Your task to perform on an android device: Clear the cart on costco. Search for energizer triple a on costco, select the first entry, add it to the cart, then select checkout. Image 0: 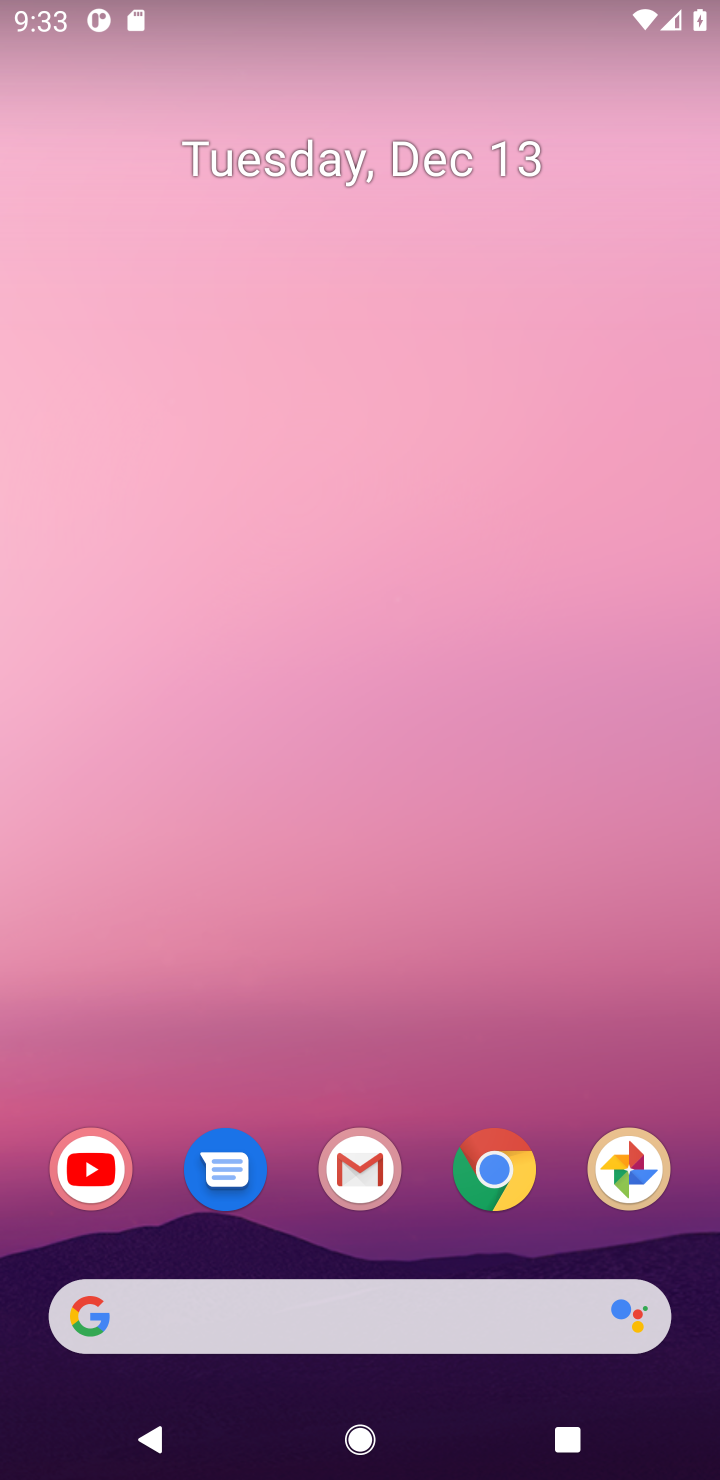
Step 0: click (476, 1202)
Your task to perform on an android device: Clear the cart on costco. Search for energizer triple a on costco, select the first entry, add it to the cart, then select checkout. Image 1: 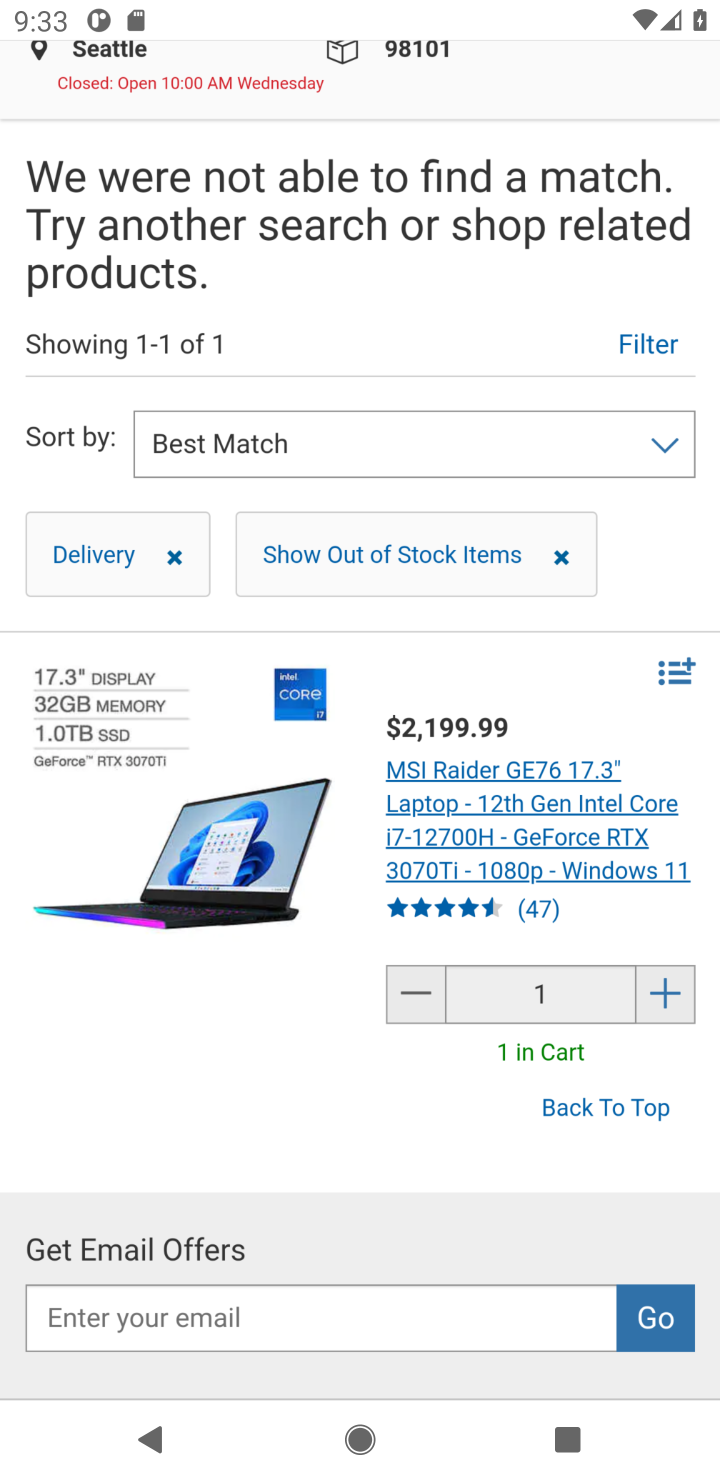
Step 1: click (476, 1202)
Your task to perform on an android device: Clear the cart on costco. Search for energizer triple a on costco, select the first entry, add it to the cart, then select checkout. Image 2: 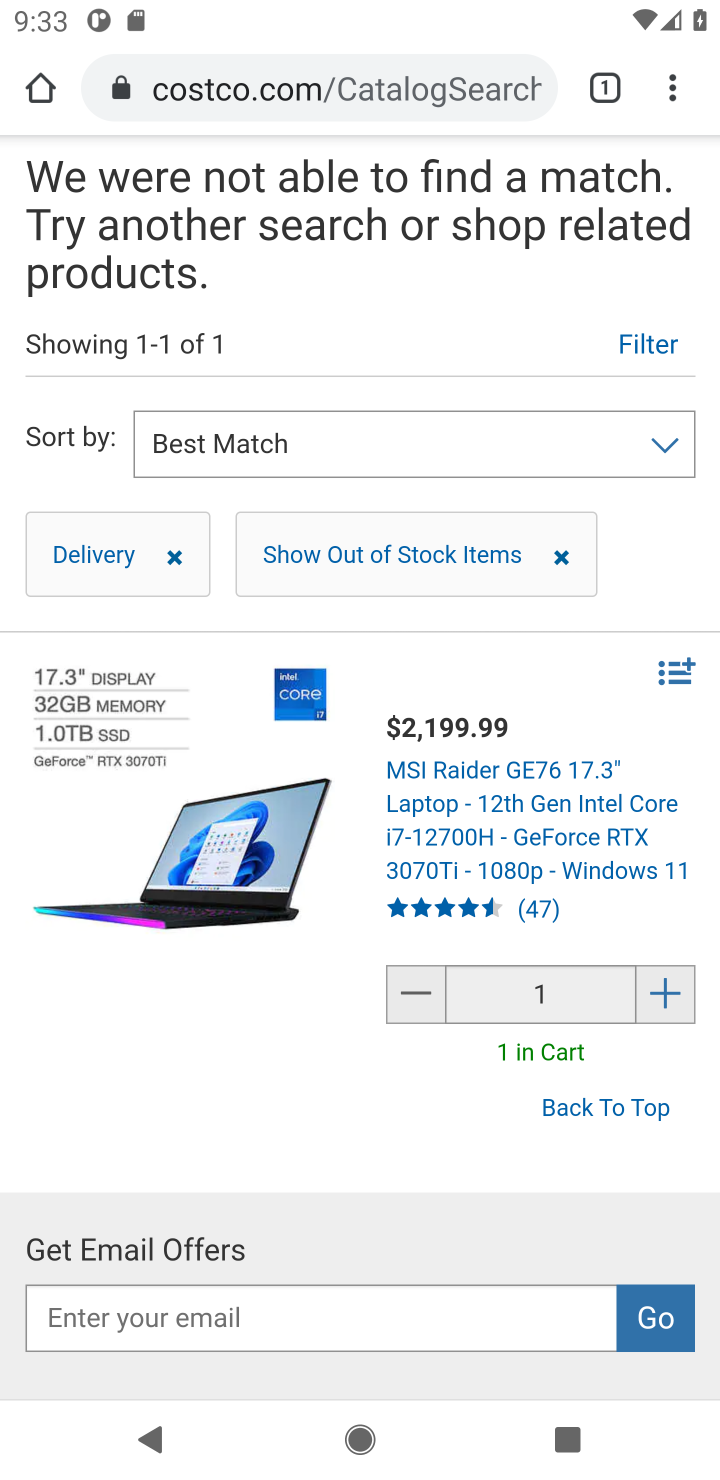
Step 2: drag from (362, 199) to (598, 1205)
Your task to perform on an android device: Clear the cart on costco. Search for energizer triple a on costco, select the first entry, add it to the cart, then select checkout. Image 3: 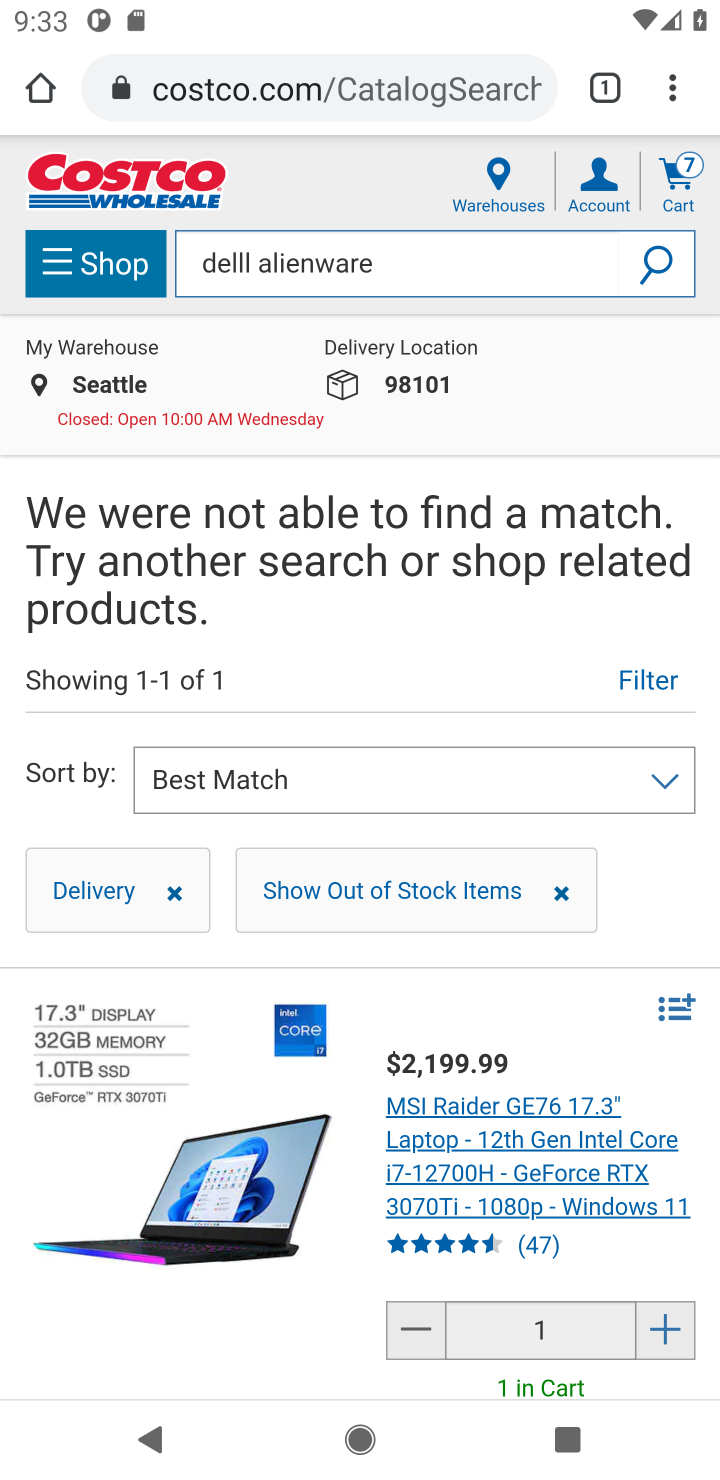
Step 3: click (380, 279)
Your task to perform on an android device: Clear the cart on costco. Search for energizer triple a on costco, select the first entry, add it to the cart, then select checkout. Image 4: 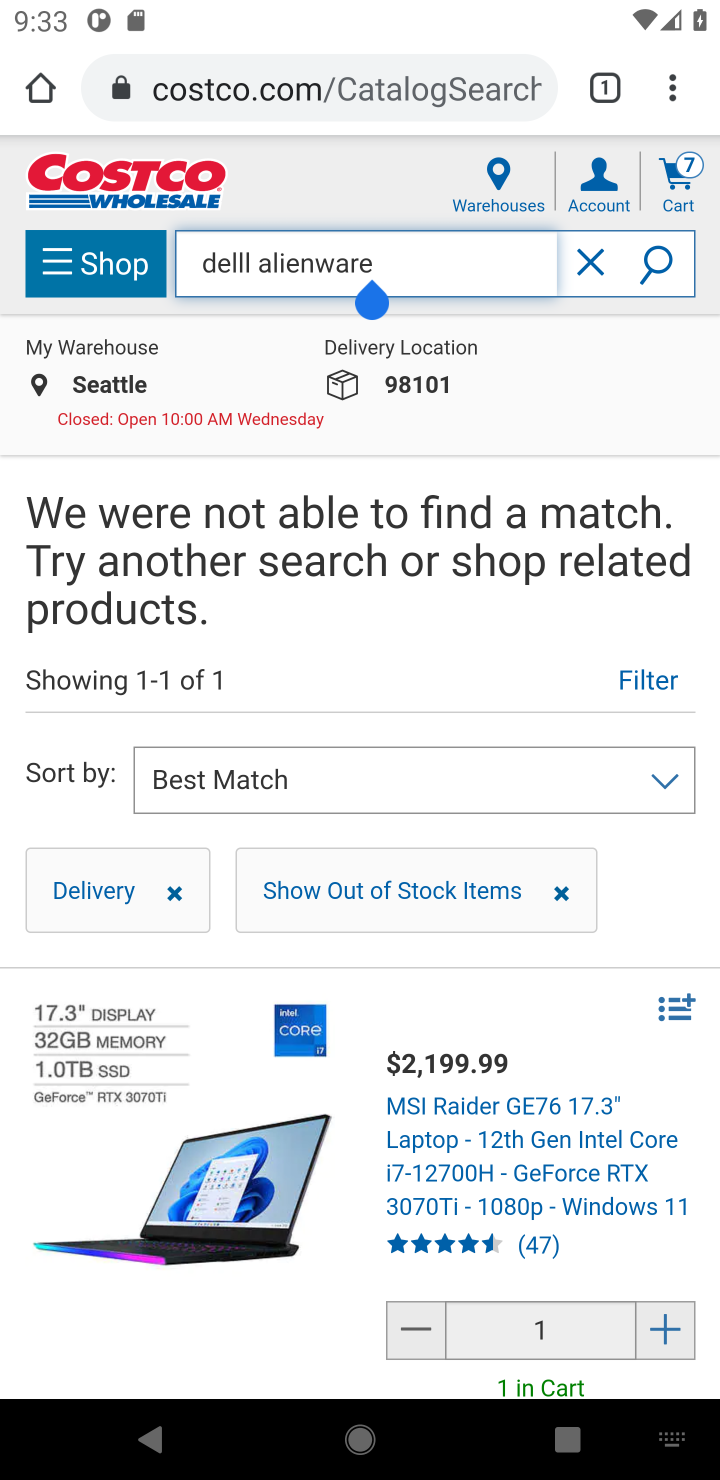
Step 4: click (580, 260)
Your task to perform on an android device: Clear the cart on costco. Search for energizer triple a on costco, select the first entry, add it to the cart, then select checkout. Image 5: 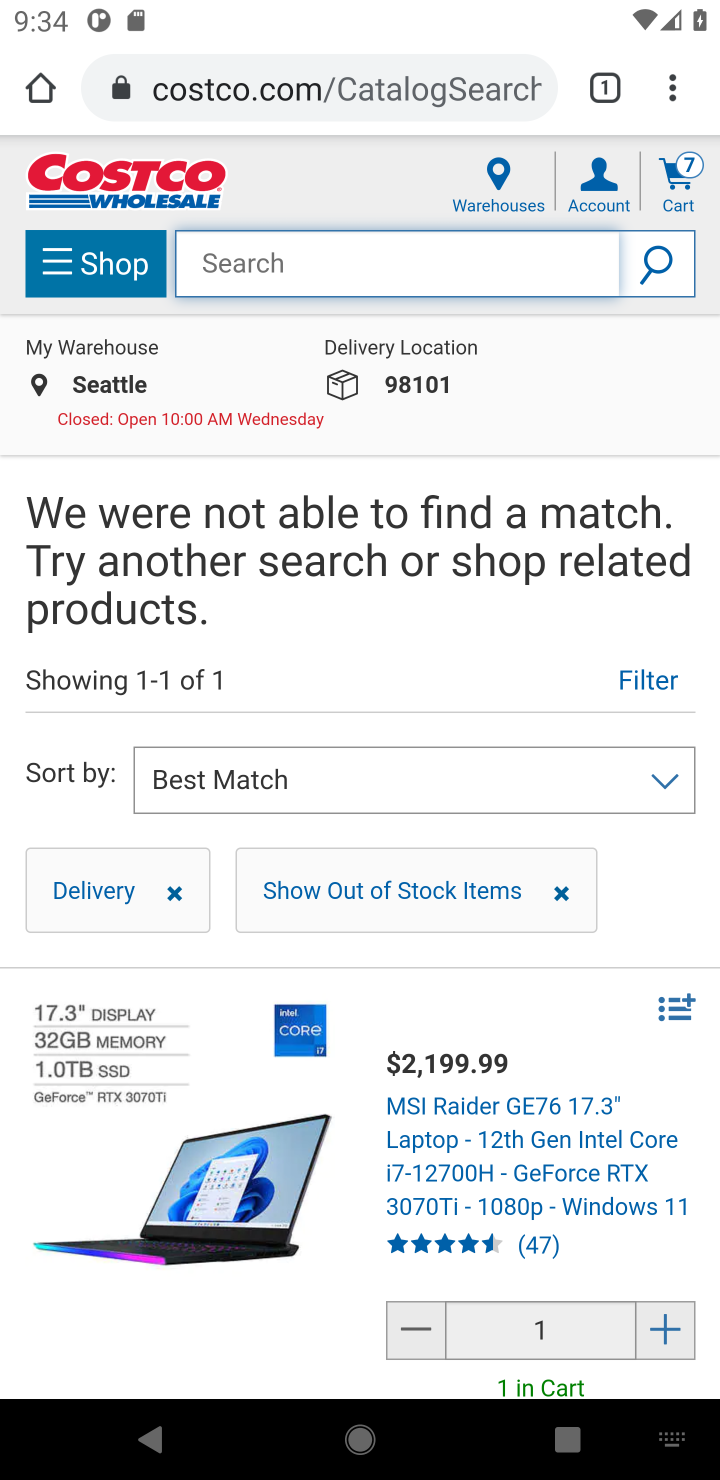
Step 5: type "energizer triple a"
Your task to perform on an android device: Clear the cart on costco. Search for energizer triple a on costco, select the first entry, add it to the cart, then select checkout. Image 6: 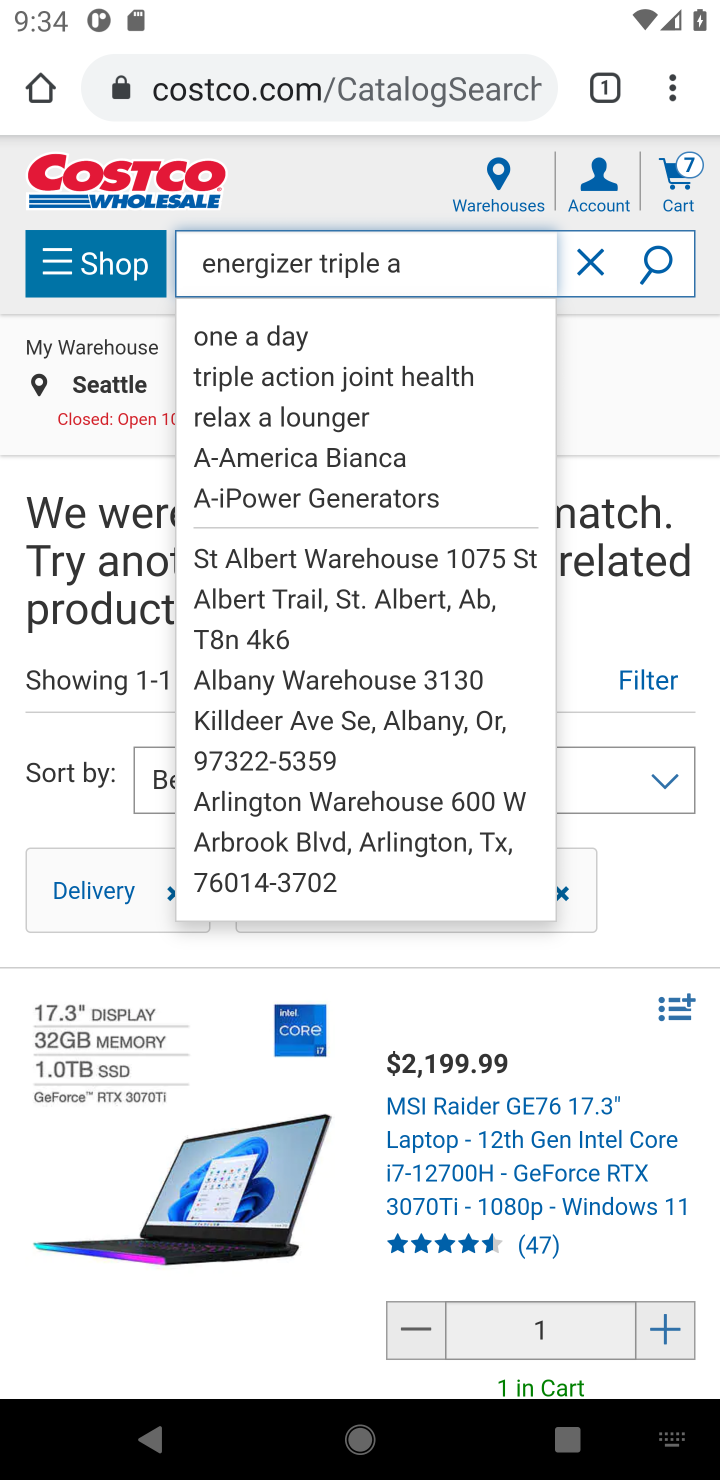
Step 6: click (656, 273)
Your task to perform on an android device: Clear the cart on costco. Search for energizer triple a on costco, select the first entry, add it to the cart, then select checkout. Image 7: 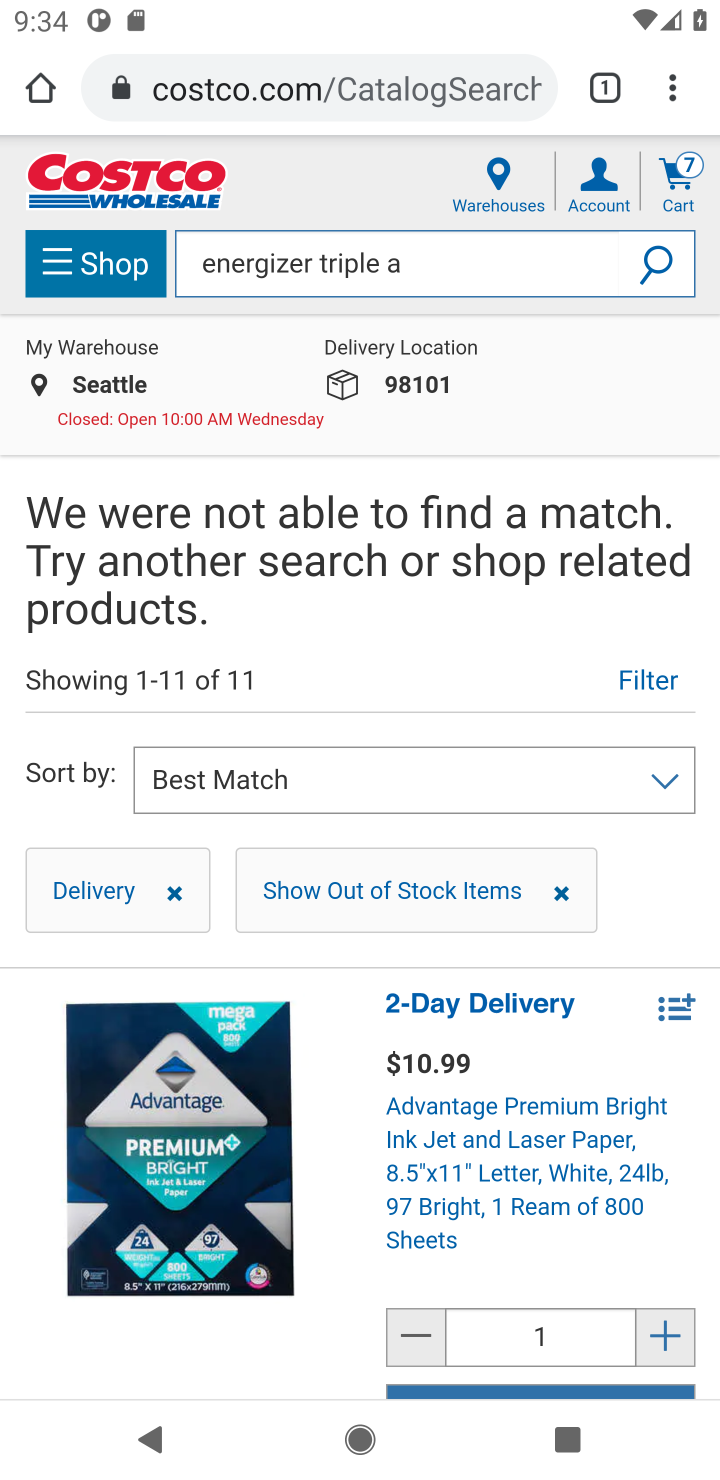
Step 7: drag from (499, 1135) to (465, 696)
Your task to perform on an android device: Clear the cart on costco. Search for energizer triple a on costco, select the first entry, add it to the cart, then select checkout. Image 8: 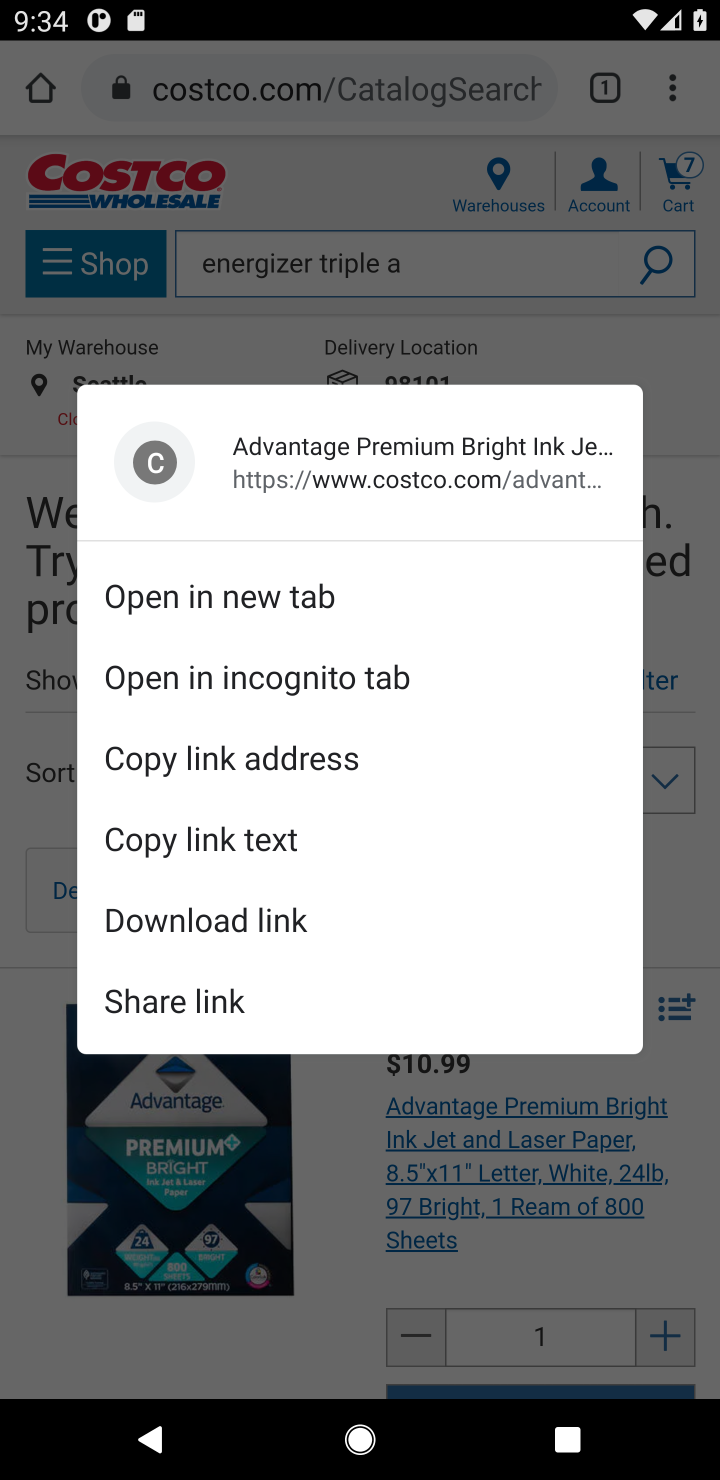
Step 8: click (296, 1214)
Your task to perform on an android device: Clear the cart on costco. Search for energizer triple a on costco, select the first entry, add it to the cart, then select checkout. Image 9: 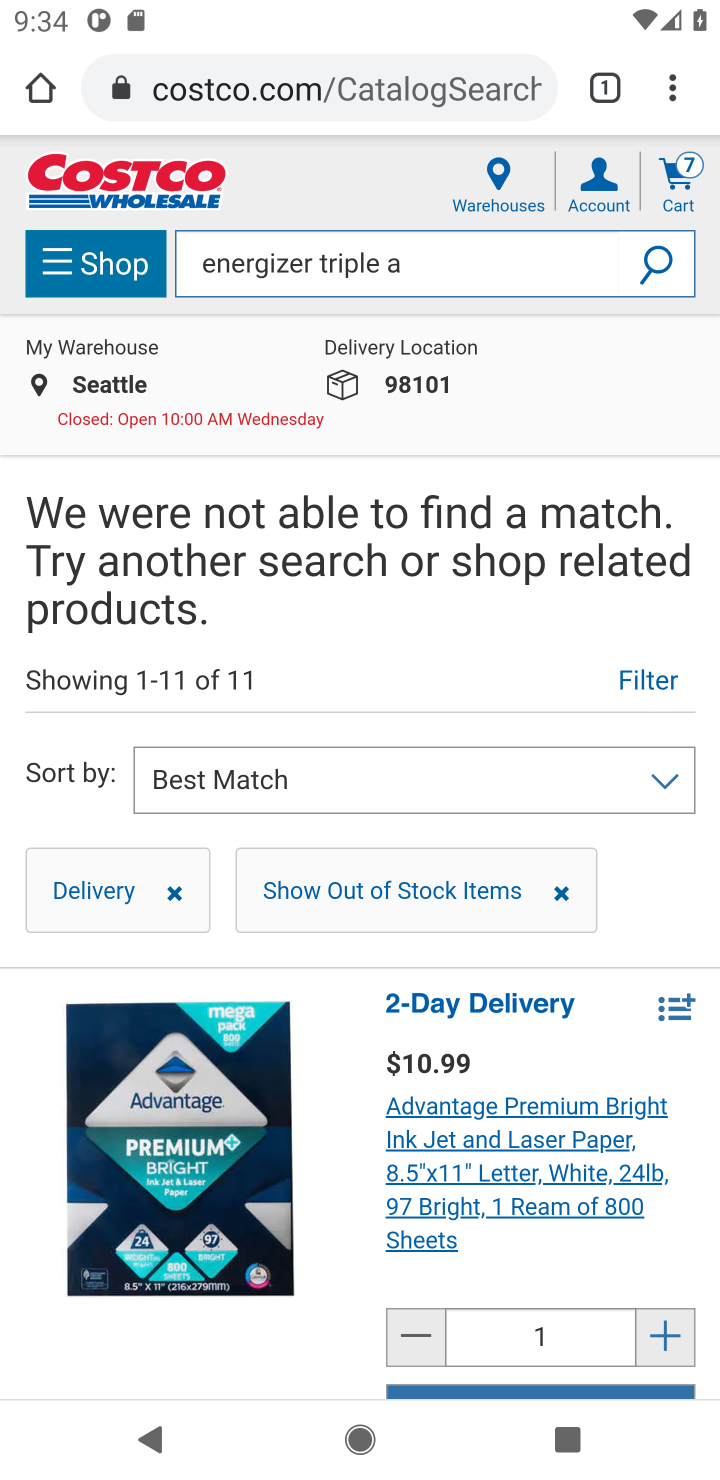
Step 9: task complete